Your task to perform on an android device: turn off improve location accuracy Image 0: 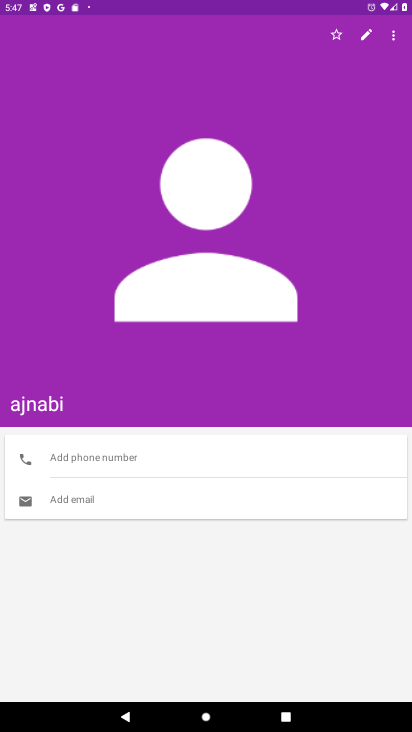
Step 0: press home button
Your task to perform on an android device: turn off improve location accuracy Image 1: 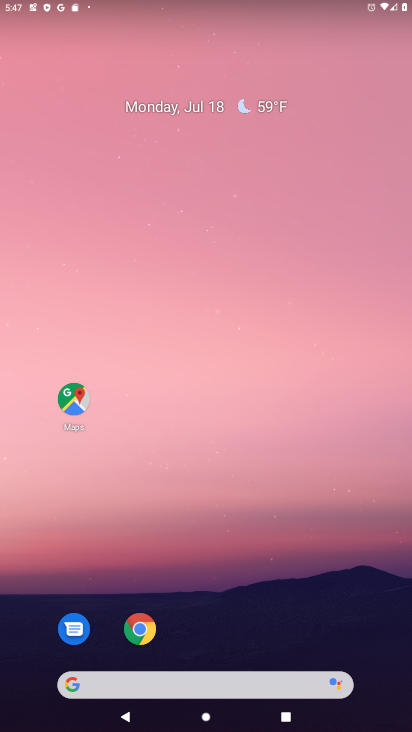
Step 1: drag from (255, 609) to (257, 132)
Your task to perform on an android device: turn off improve location accuracy Image 2: 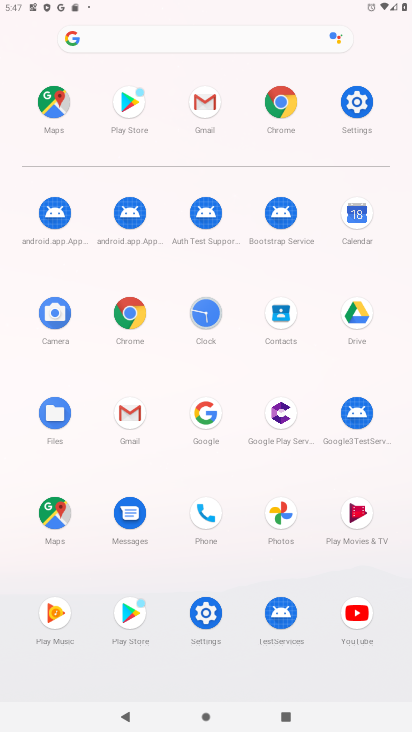
Step 2: click (364, 97)
Your task to perform on an android device: turn off improve location accuracy Image 3: 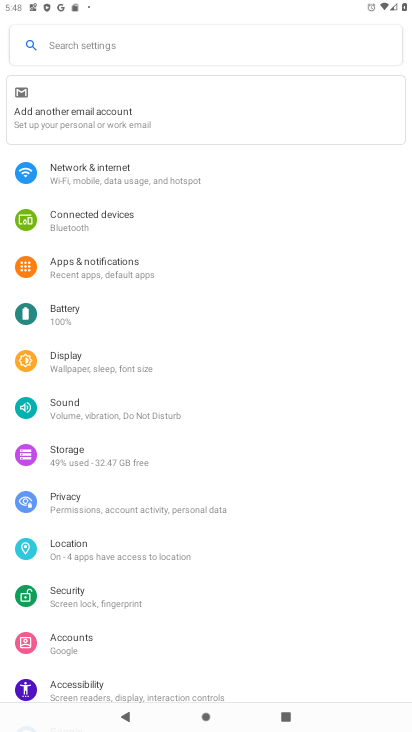
Step 3: click (97, 551)
Your task to perform on an android device: turn off improve location accuracy Image 4: 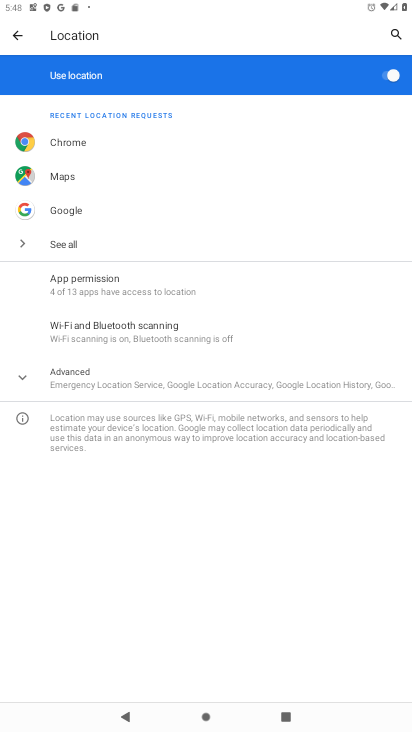
Step 4: click (127, 375)
Your task to perform on an android device: turn off improve location accuracy Image 5: 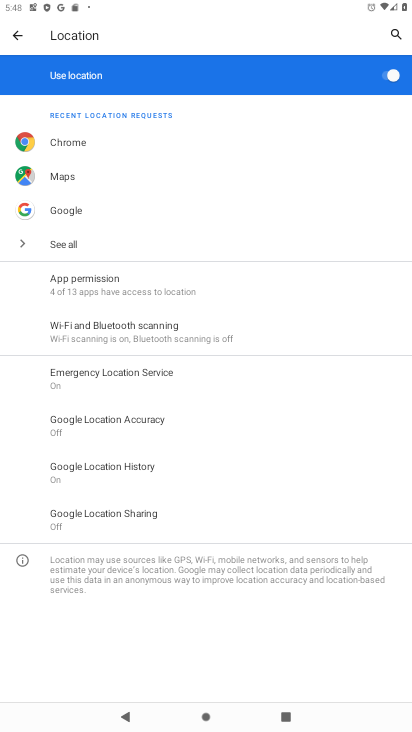
Step 5: click (122, 423)
Your task to perform on an android device: turn off improve location accuracy Image 6: 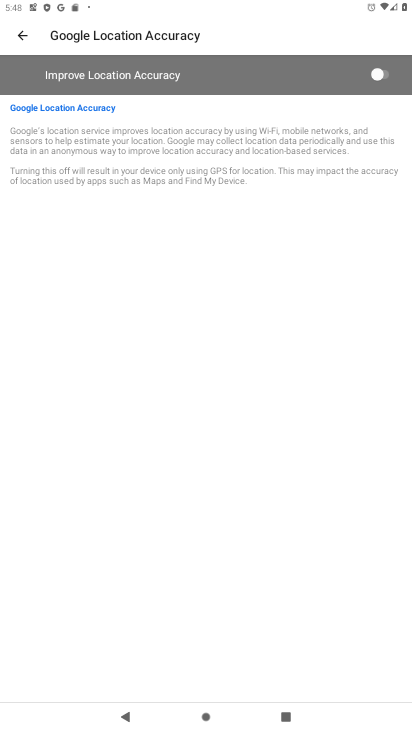
Step 6: task complete